Your task to perform on an android device: Open the web browser Image 0: 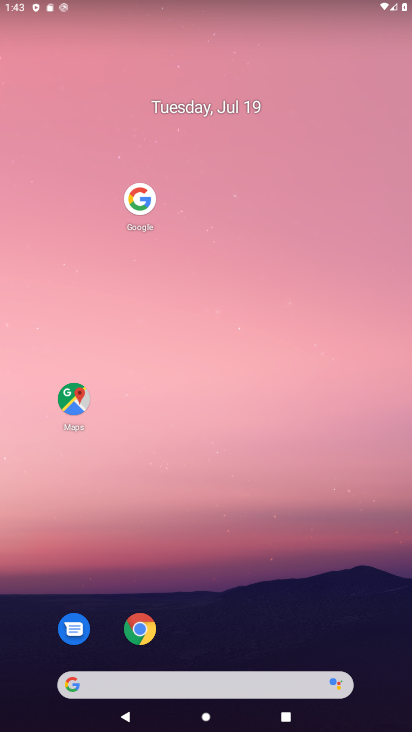
Step 0: click (143, 631)
Your task to perform on an android device: Open the web browser Image 1: 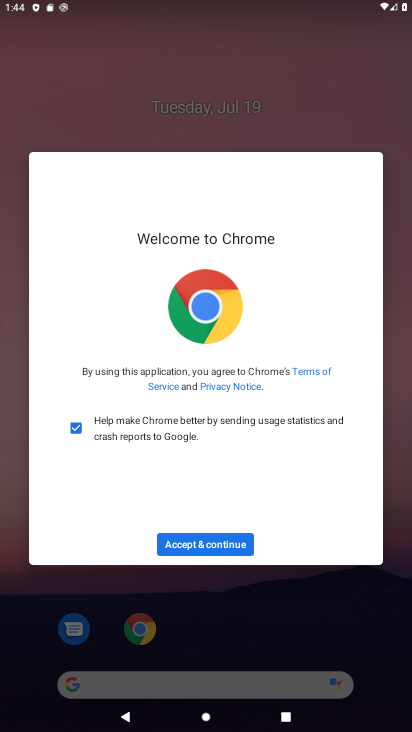
Step 1: click (207, 536)
Your task to perform on an android device: Open the web browser Image 2: 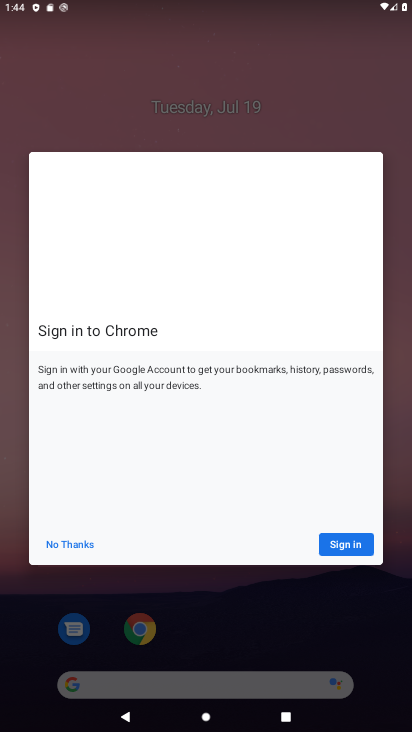
Step 2: task complete